Your task to perform on an android device: Open Reddit.com Image 0: 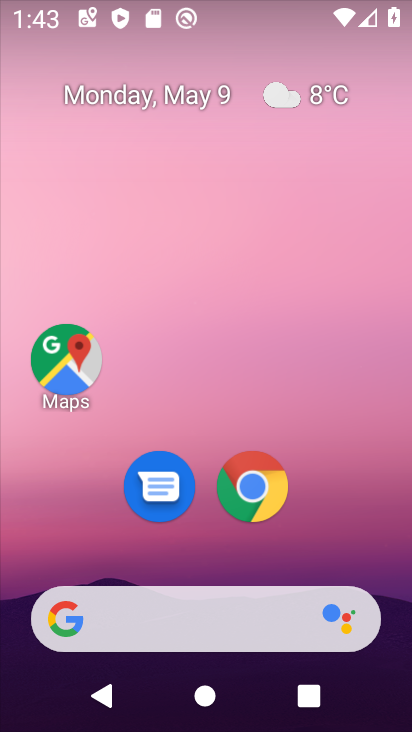
Step 0: click (139, 608)
Your task to perform on an android device: Open Reddit.com Image 1: 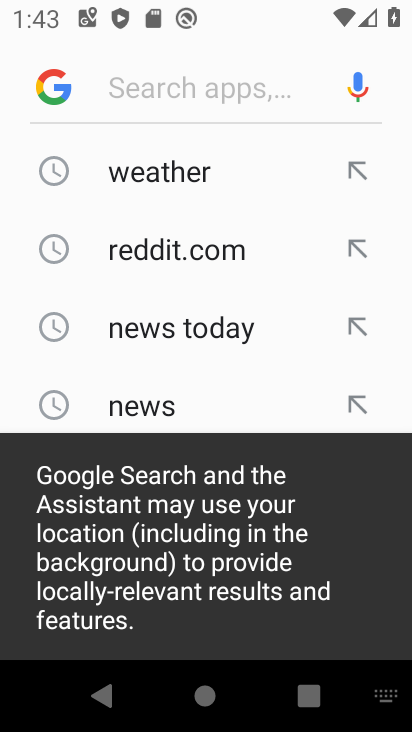
Step 1: click (260, 88)
Your task to perform on an android device: Open Reddit.com Image 2: 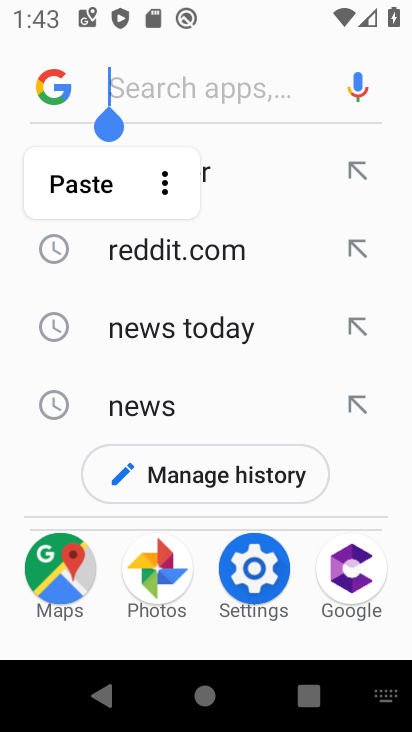
Step 2: click (259, 247)
Your task to perform on an android device: Open Reddit.com Image 3: 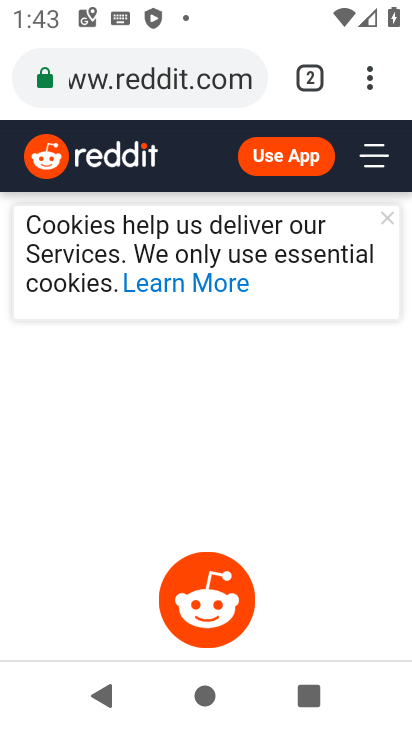
Step 3: task complete